Your task to perform on an android device: Open network settings Image 0: 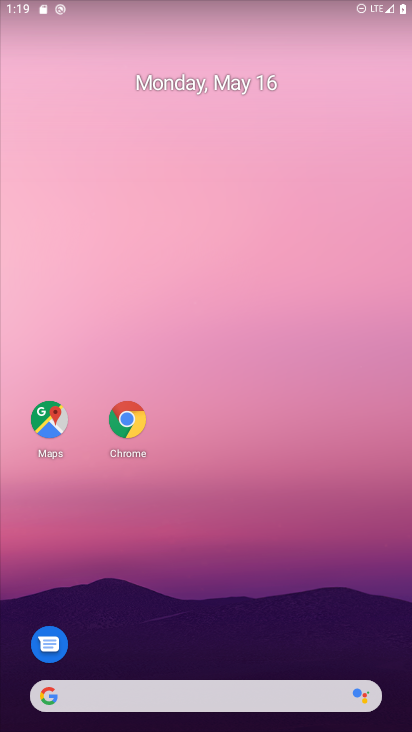
Step 0: drag from (191, 619) to (299, 80)
Your task to perform on an android device: Open network settings Image 1: 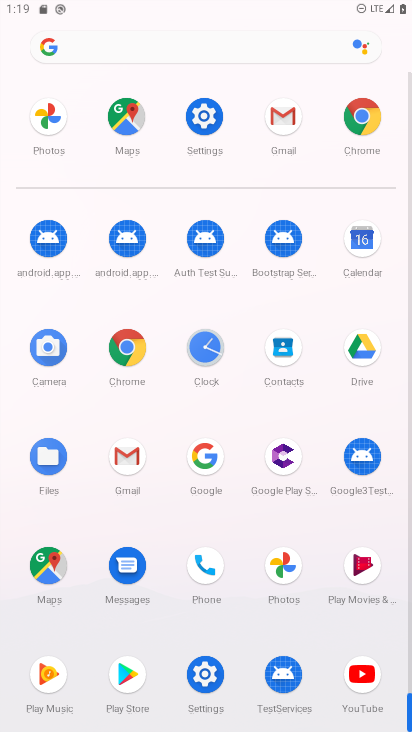
Step 1: click (198, 118)
Your task to perform on an android device: Open network settings Image 2: 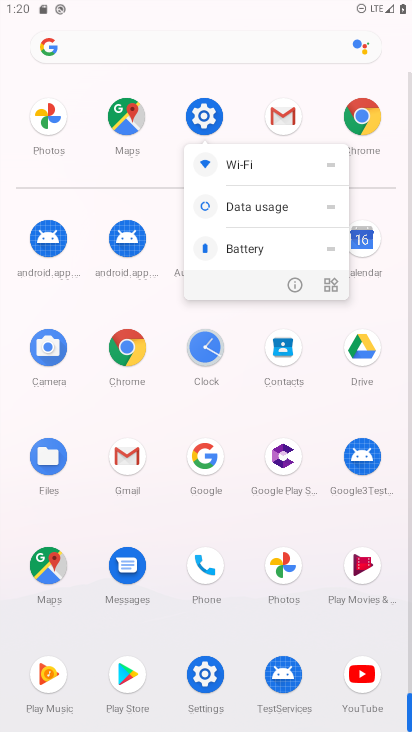
Step 2: click (284, 296)
Your task to perform on an android device: Open network settings Image 3: 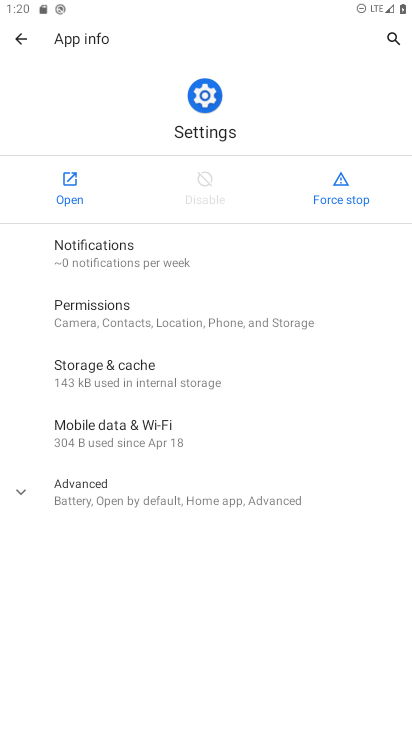
Step 3: click (63, 177)
Your task to perform on an android device: Open network settings Image 4: 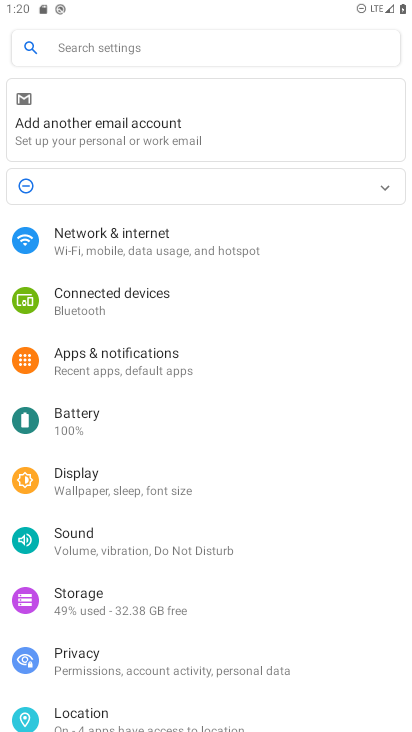
Step 4: click (168, 259)
Your task to perform on an android device: Open network settings Image 5: 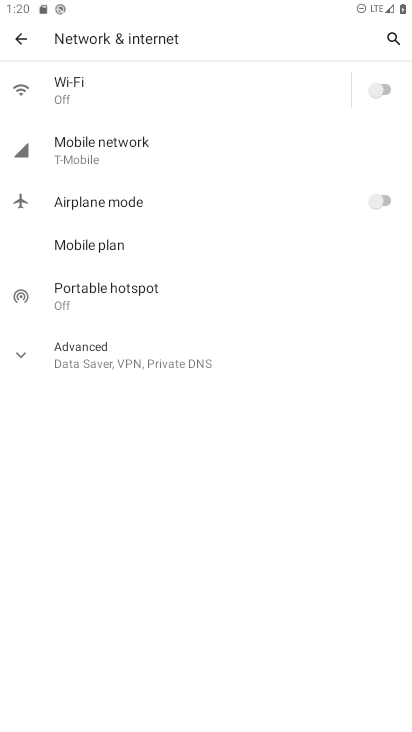
Step 5: task complete